Your task to perform on an android device: snooze an email in the gmail app Image 0: 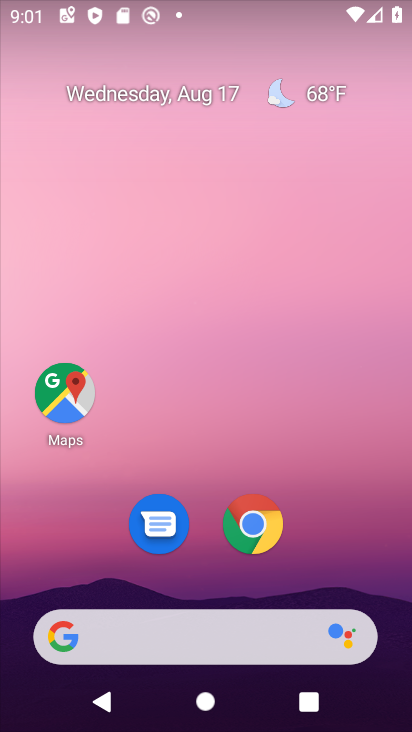
Step 0: drag from (317, 517) to (331, 11)
Your task to perform on an android device: snooze an email in the gmail app Image 1: 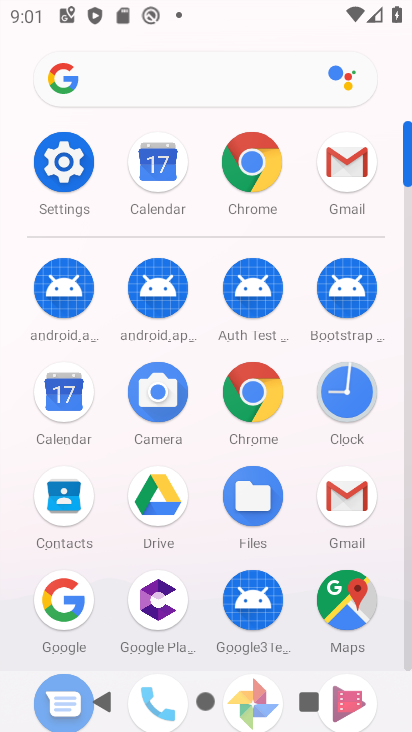
Step 1: click (352, 162)
Your task to perform on an android device: snooze an email in the gmail app Image 2: 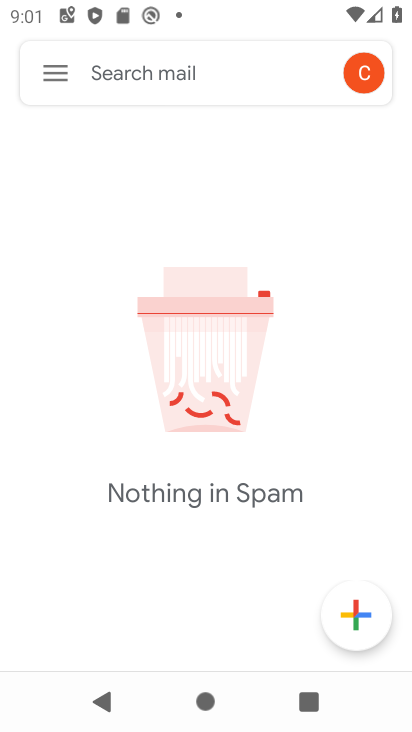
Step 2: click (62, 81)
Your task to perform on an android device: snooze an email in the gmail app Image 3: 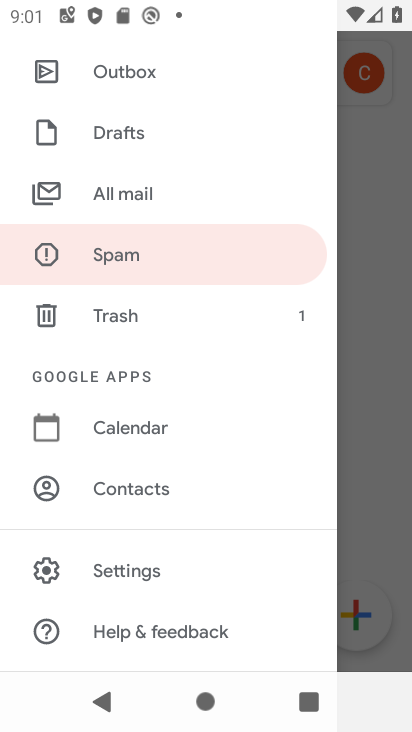
Step 3: click (118, 189)
Your task to perform on an android device: snooze an email in the gmail app Image 4: 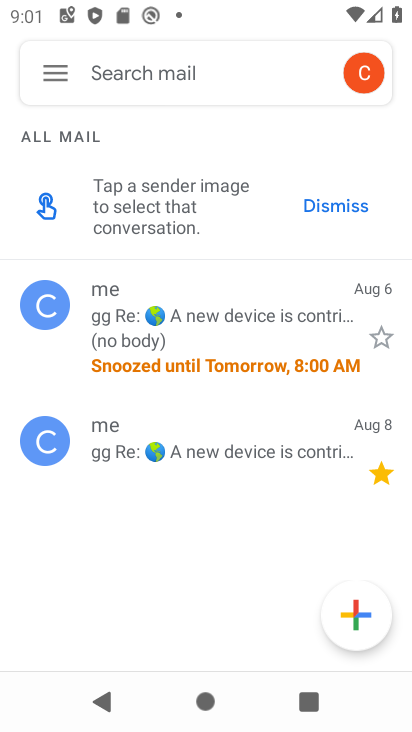
Step 4: click (202, 442)
Your task to perform on an android device: snooze an email in the gmail app Image 5: 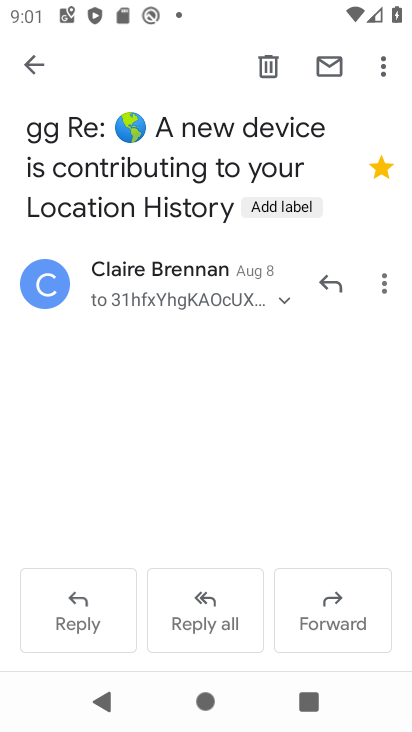
Step 5: click (382, 69)
Your task to perform on an android device: snooze an email in the gmail app Image 6: 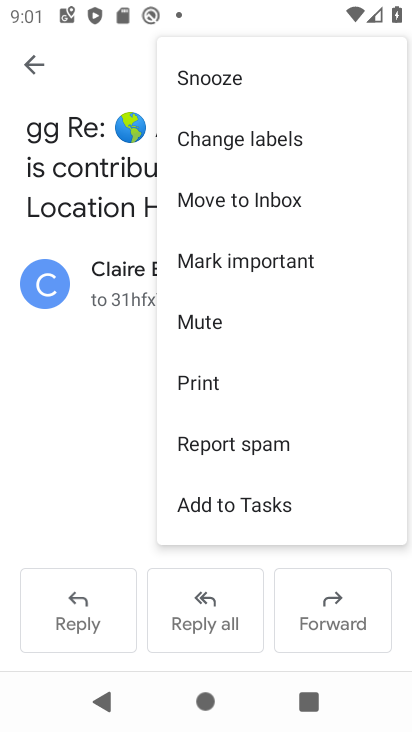
Step 6: click (282, 75)
Your task to perform on an android device: snooze an email in the gmail app Image 7: 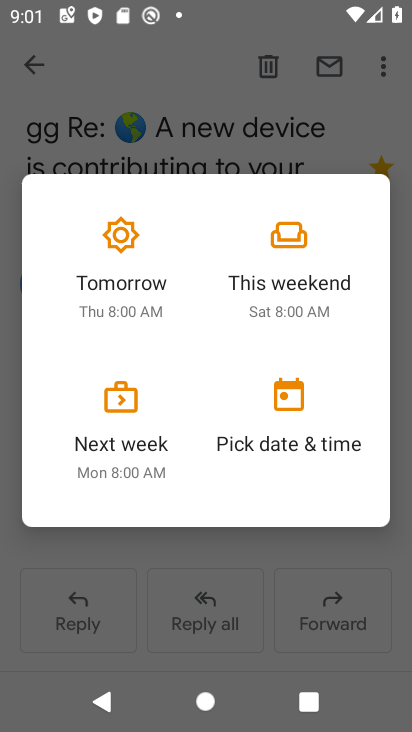
Step 7: click (154, 264)
Your task to perform on an android device: snooze an email in the gmail app Image 8: 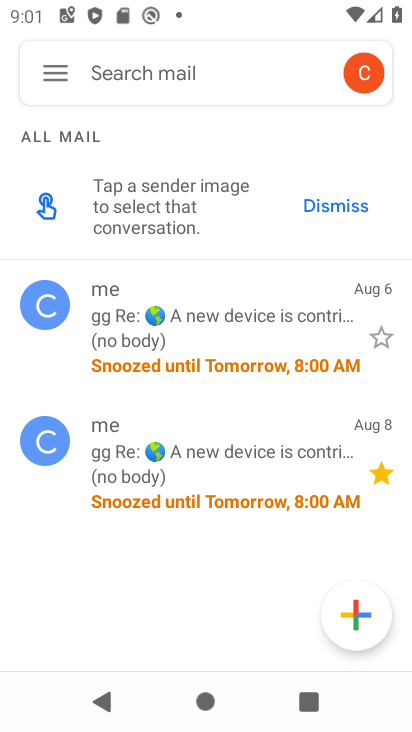
Step 8: task complete